Your task to perform on an android device: see tabs open on other devices in the chrome app Image 0: 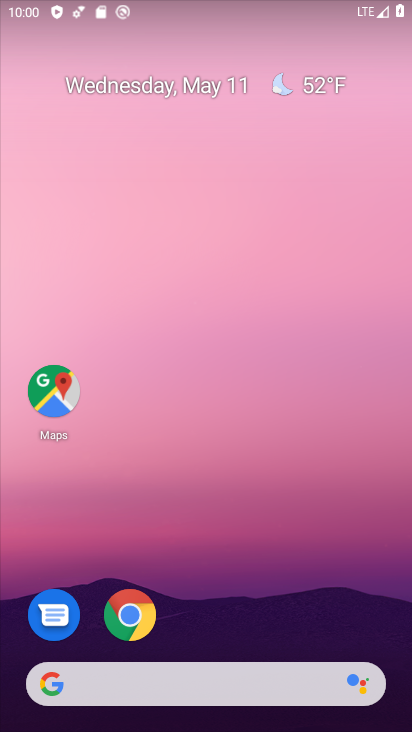
Step 0: click (129, 618)
Your task to perform on an android device: see tabs open on other devices in the chrome app Image 1: 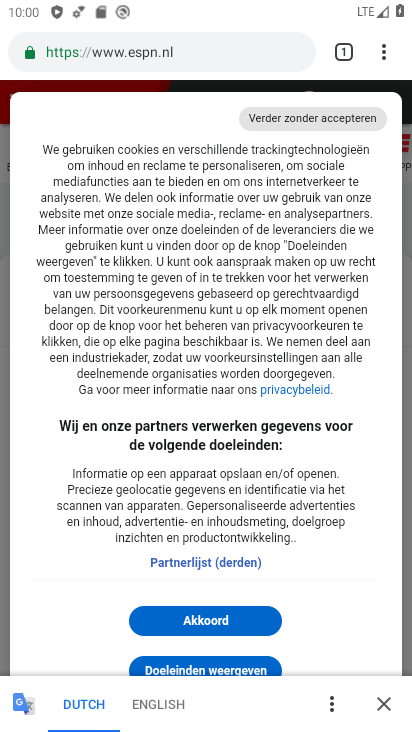
Step 1: click (382, 52)
Your task to perform on an android device: see tabs open on other devices in the chrome app Image 2: 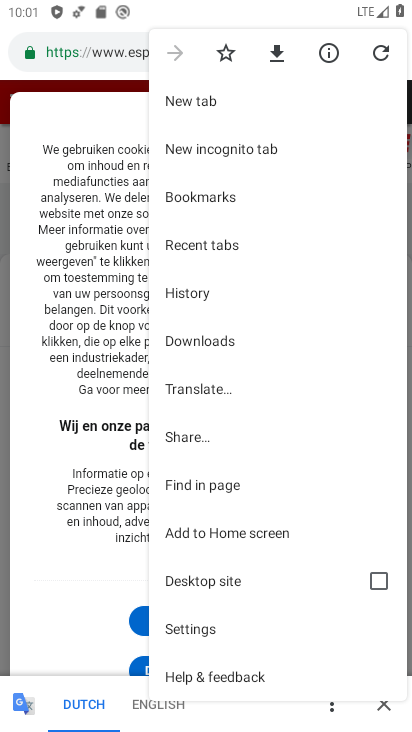
Step 2: click (229, 248)
Your task to perform on an android device: see tabs open on other devices in the chrome app Image 3: 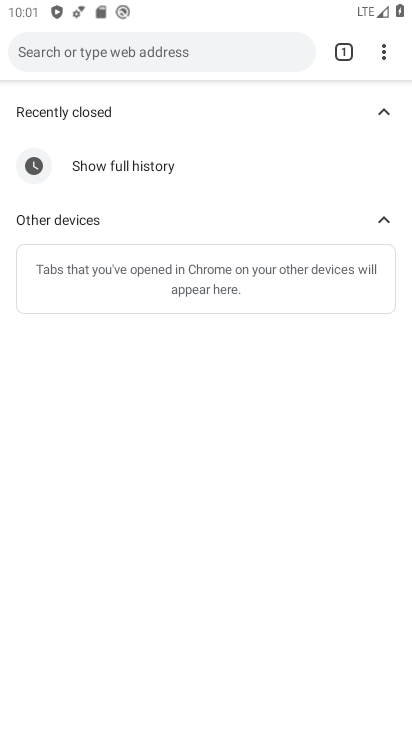
Step 3: task complete